Your task to perform on an android device: toggle wifi Image 0: 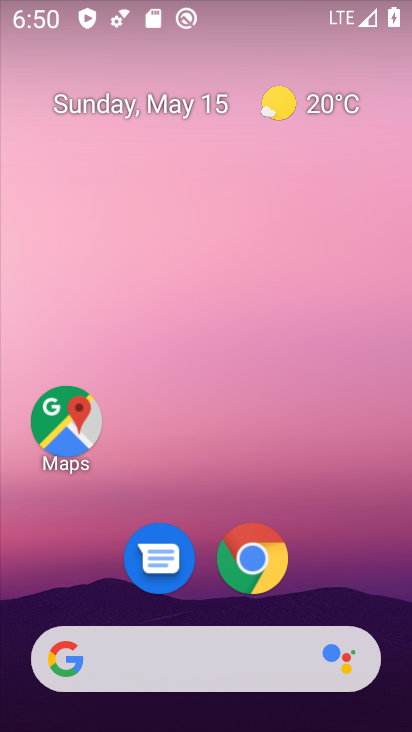
Step 0: drag from (325, 507) to (211, 56)
Your task to perform on an android device: toggle wifi Image 1: 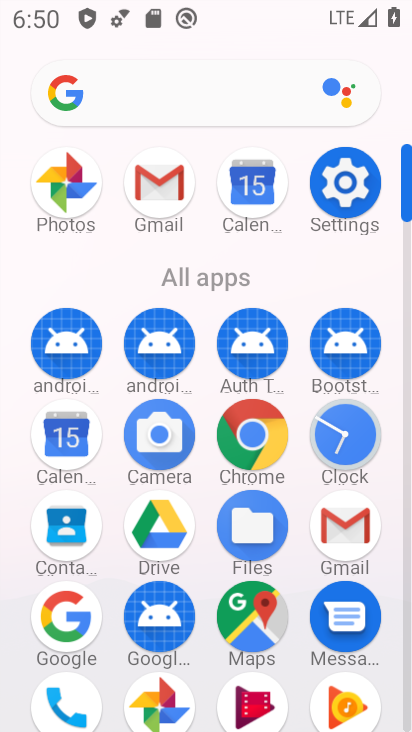
Step 1: click (343, 176)
Your task to perform on an android device: toggle wifi Image 2: 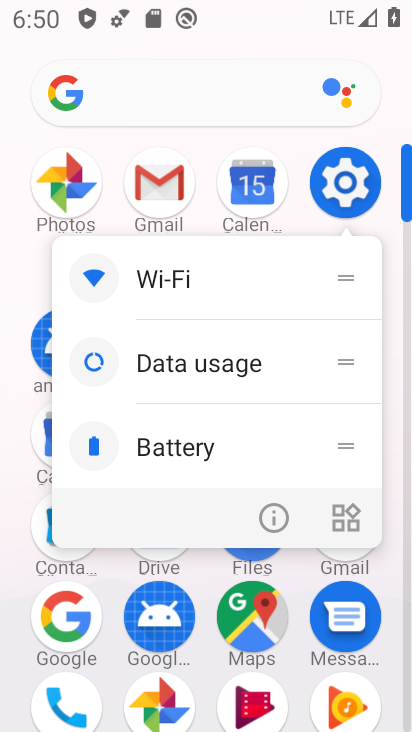
Step 2: click (338, 184)
Your task to perform on an android device: toggle wifi Image 3: 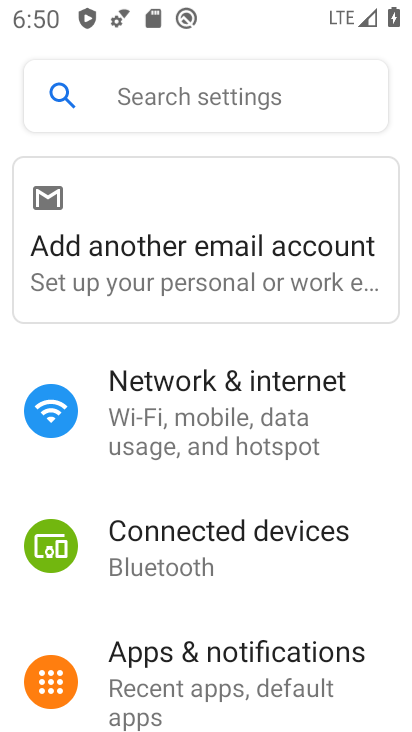
Step 3: click (185, 395)
Your task to perform on an android device: toggle wifi Image 4: 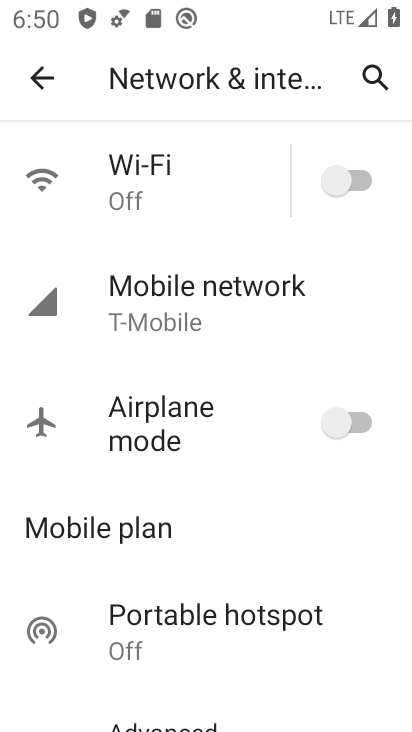
Step 4: click (340, 174)
Your task to perform on an android device: toggle wifi Image 5: 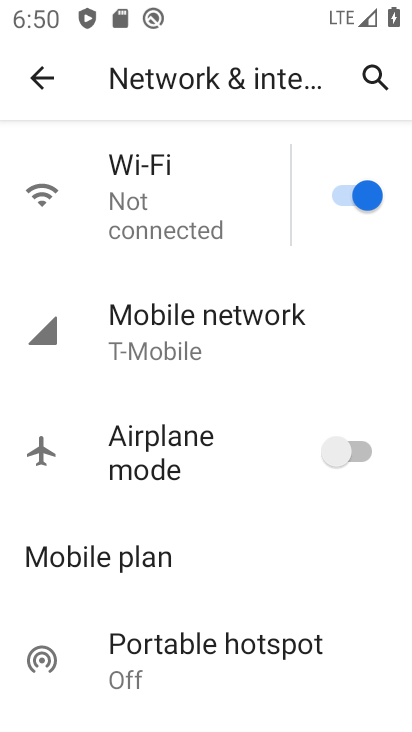
Step 5: task complete